Your task to perform on an android device: open a new tab in the chrome app Image 0: 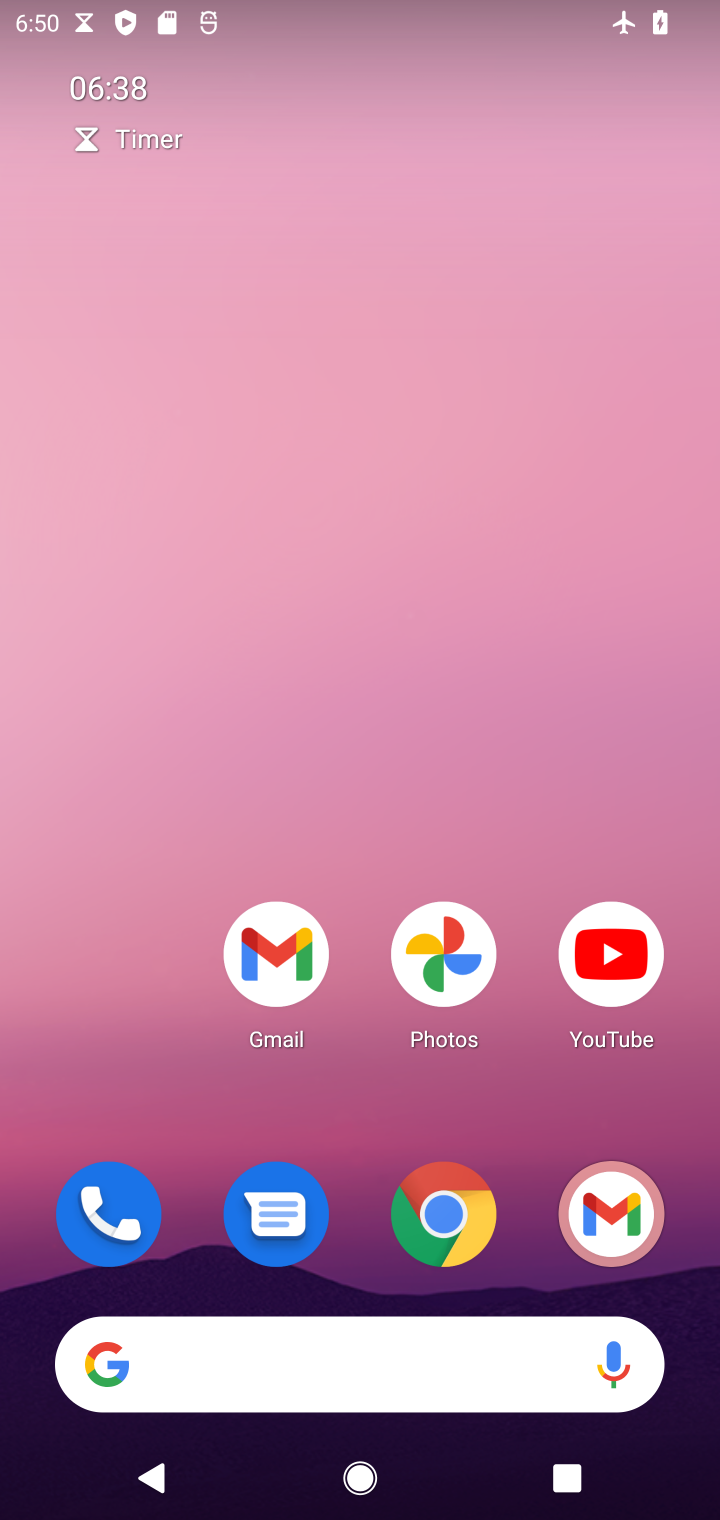
Step 0: click (447, 1205)
Your task to perform on an android device: open a new tab in the chrome app Image 1: 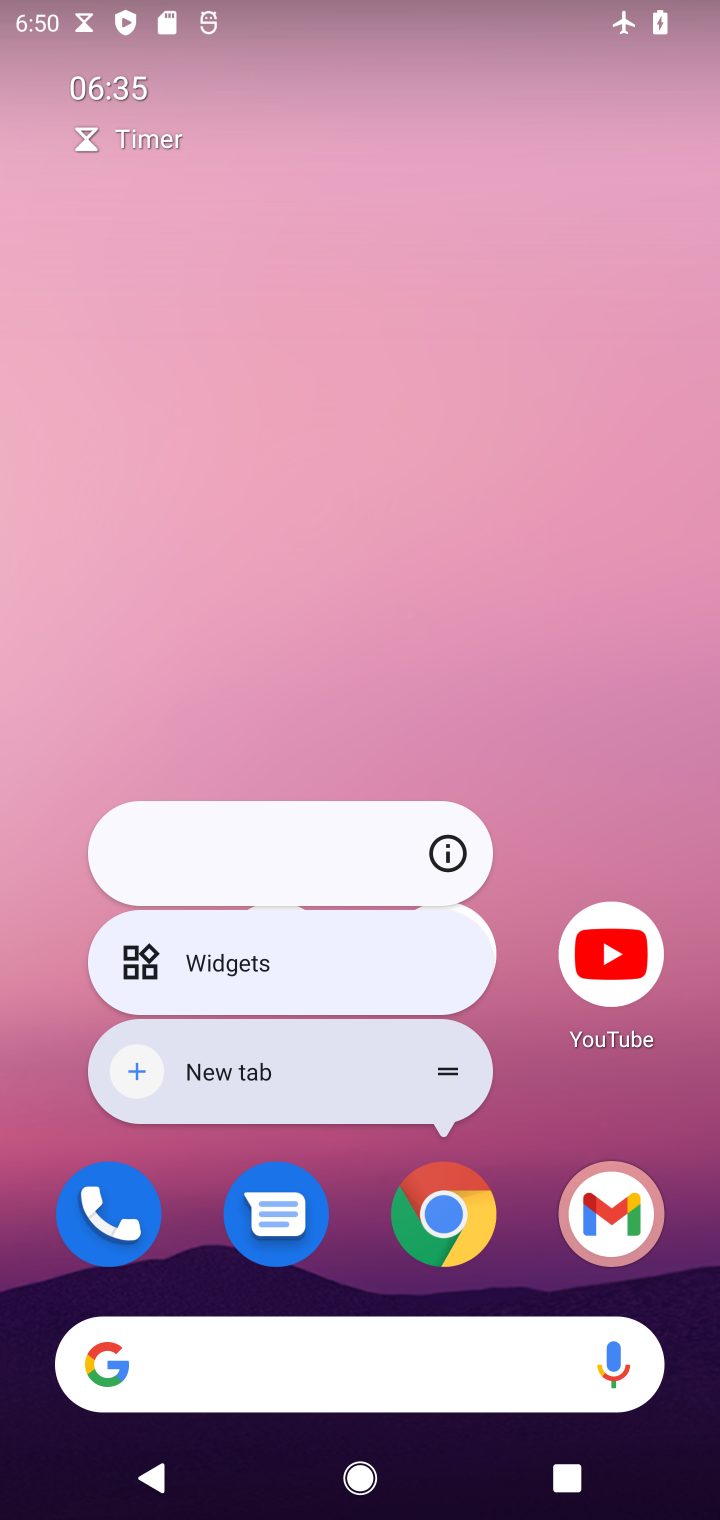
Step 1: click (447, 1205)
Your task to perform on an android device: open a new tab in the chrome app Image 2: 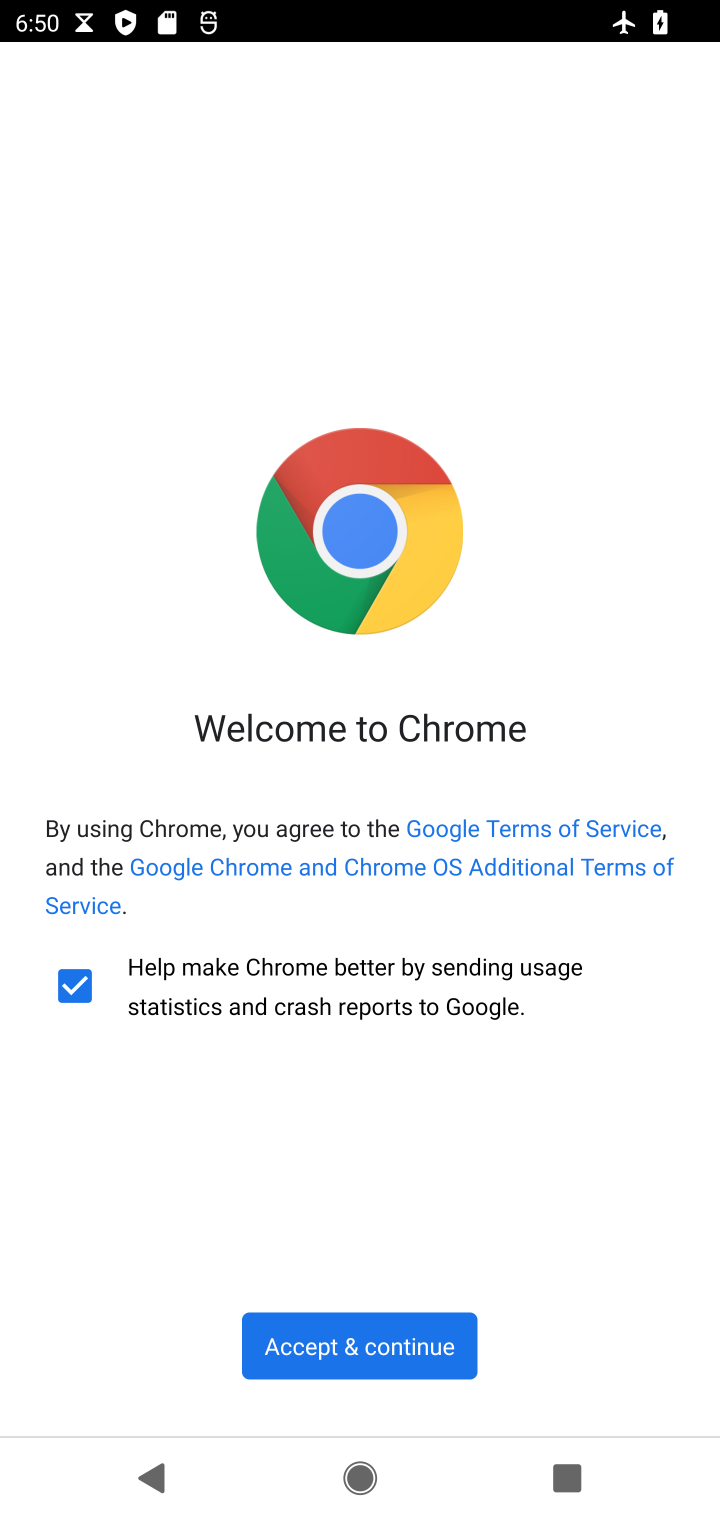
Step 2: click (361, 1362)
Your task to perform on an android device: open a new tab in the chrome app Image 3: 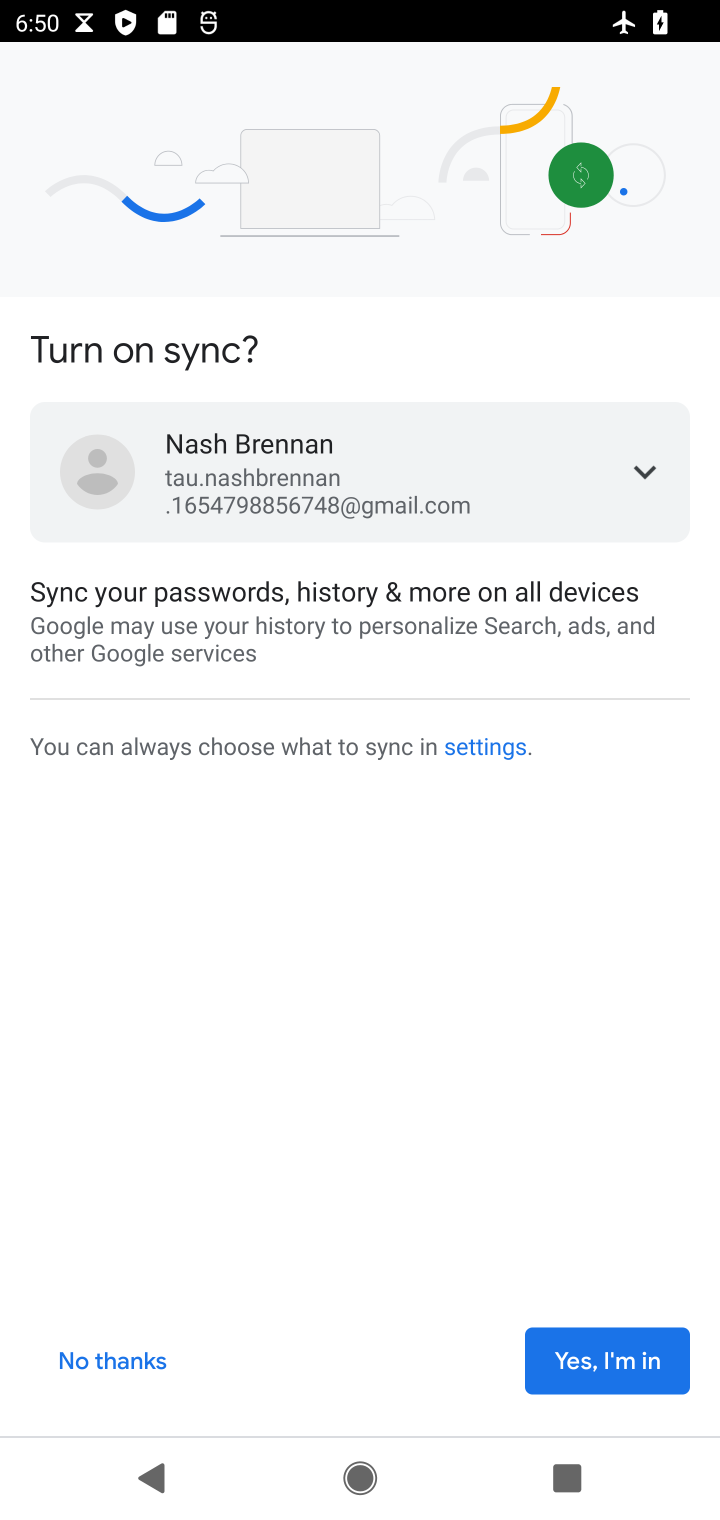
Step 3: click (597, 1357)
Your task to perform on an android device: open a new tab in the chrome app Image 4: 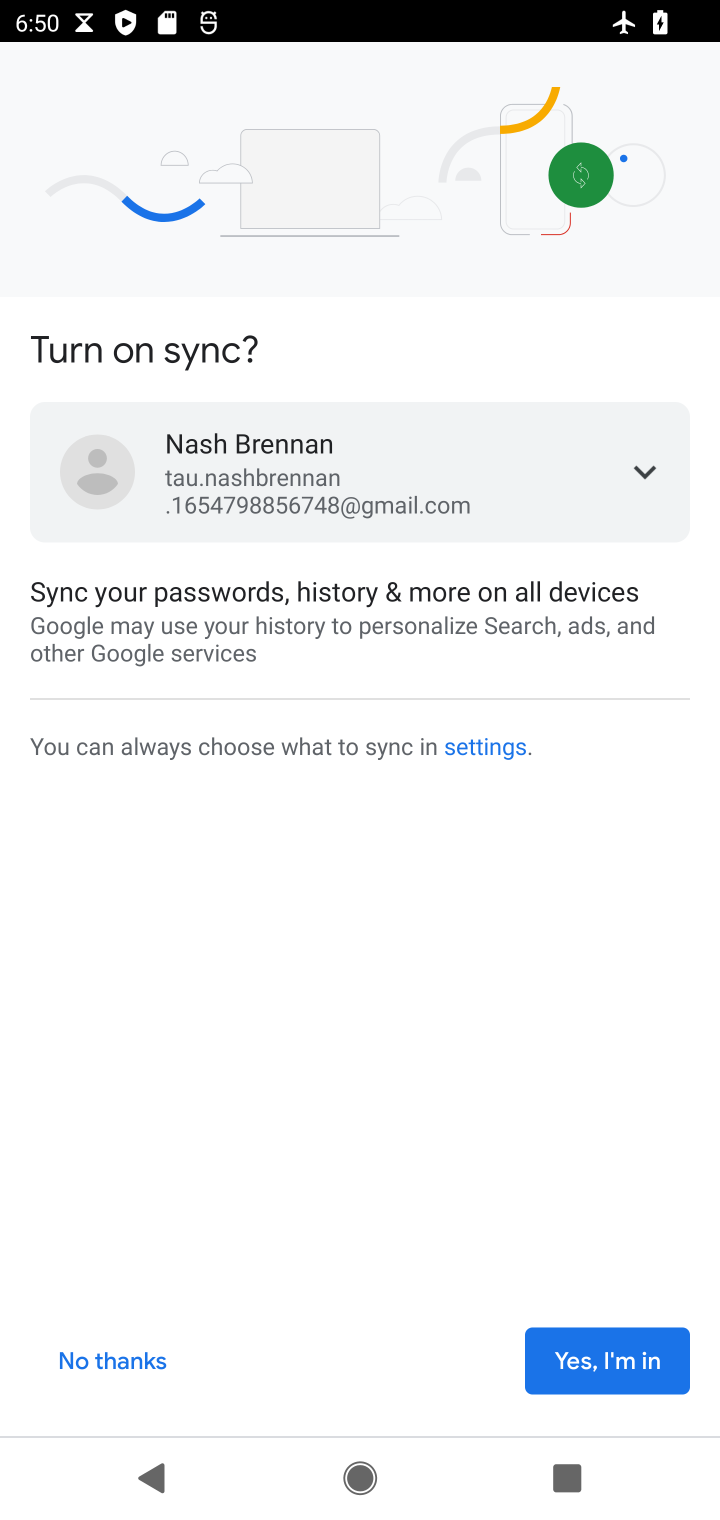
Step 4: click (616, 1362)
Your task to perform on an android device: open a new tab in the chrome app Image 5: 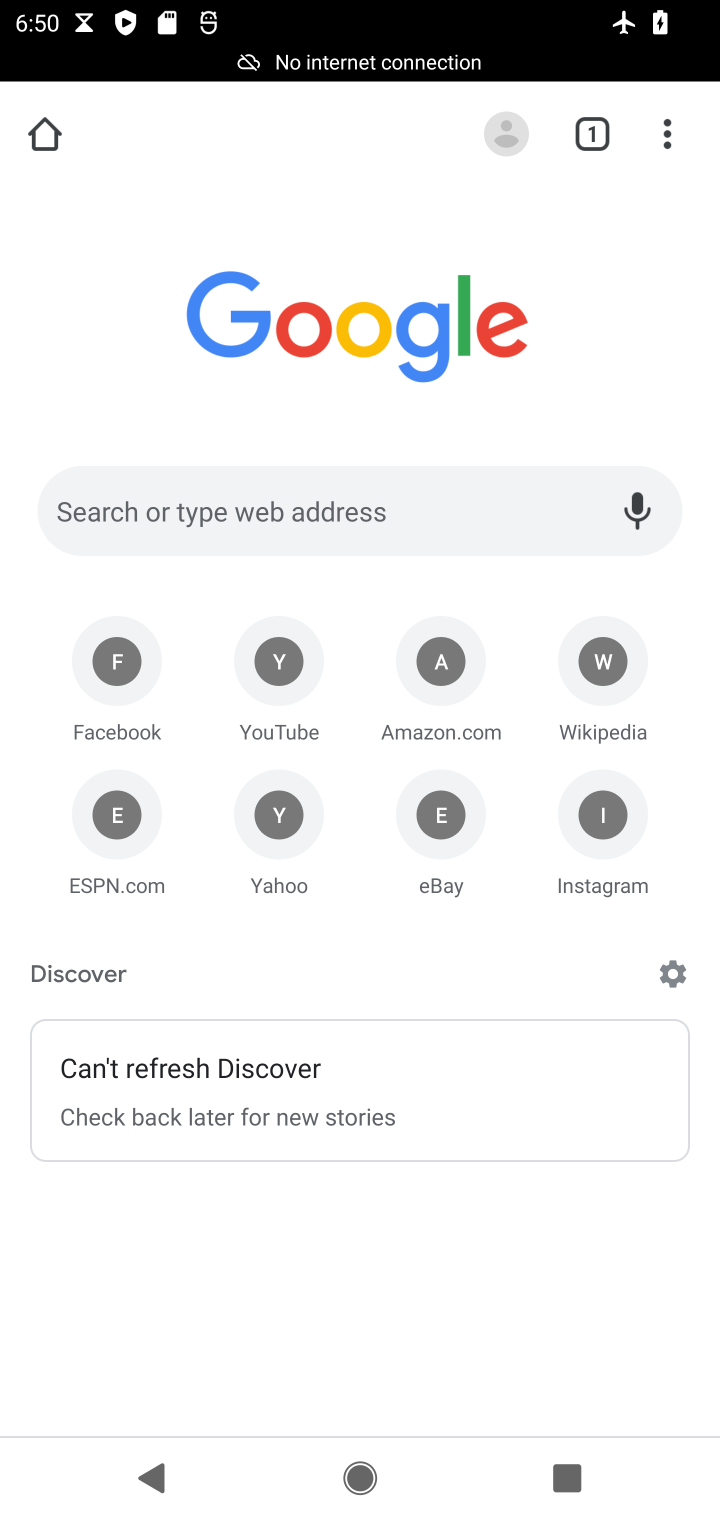
Step 5: click (672, 143)
Your task to perform on an android device: open a new tab in the chrome app Image 6: 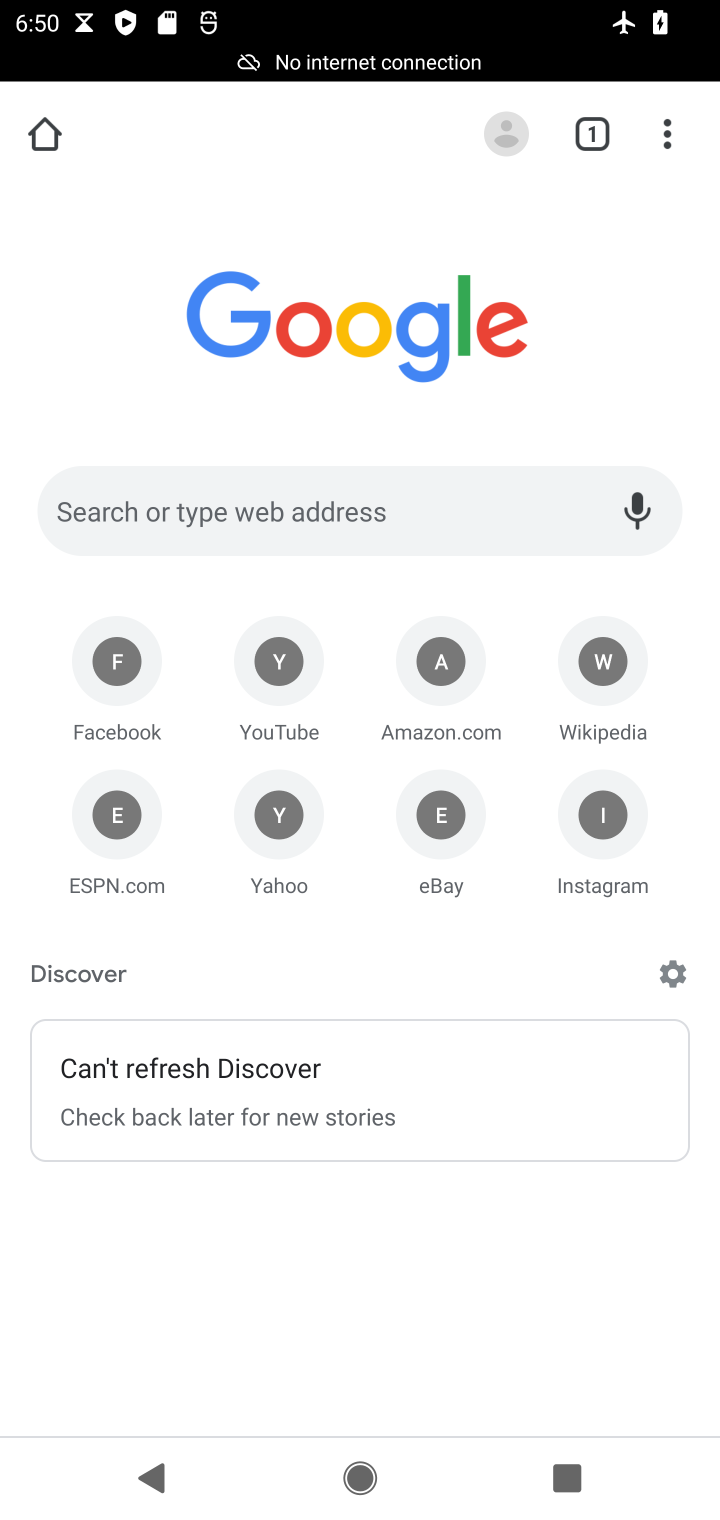
Step 6: click (659, 145)
Your task to perform on an android device: open a new tab in the chrome app Image 7: 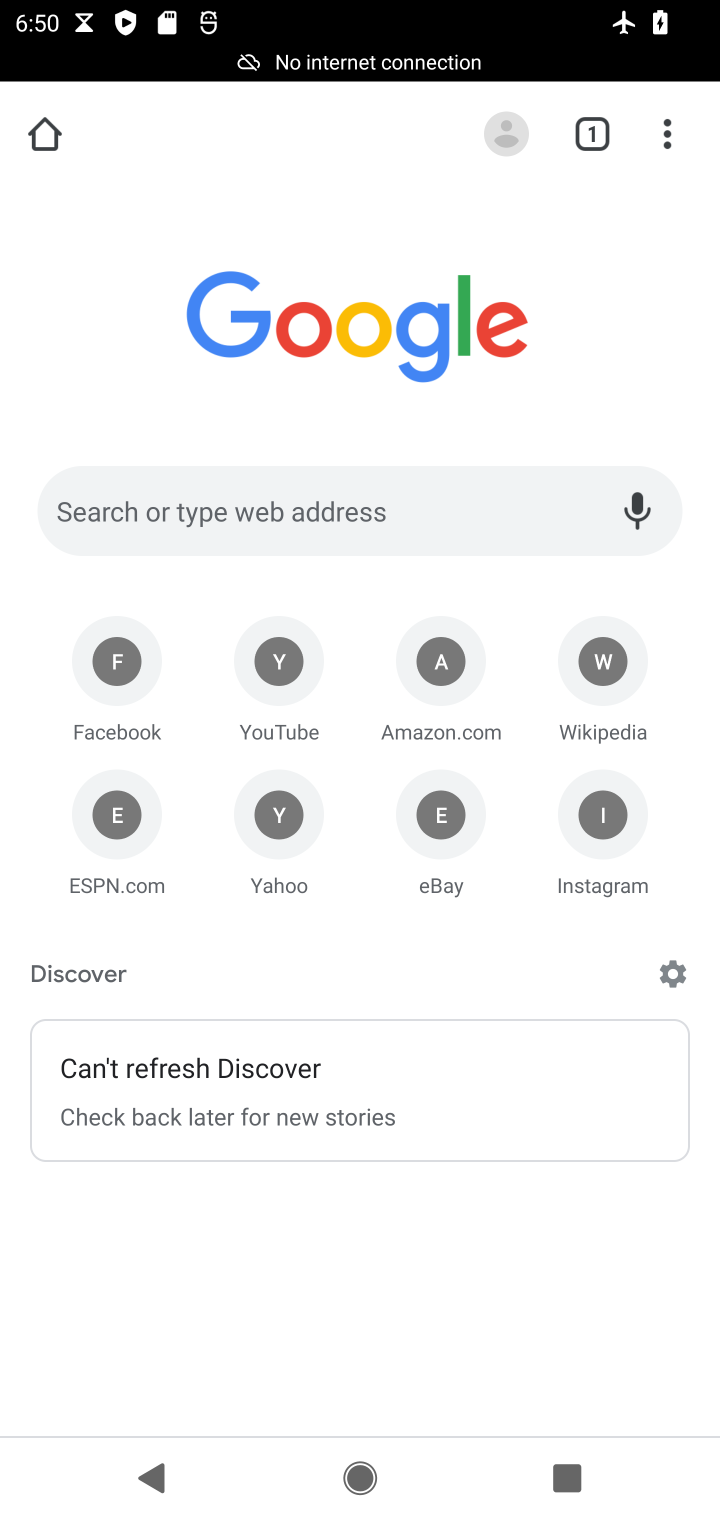
Step 7: click (659, 146)
Your task to perform on an android device: open a new tab in the chrome app Image 8: 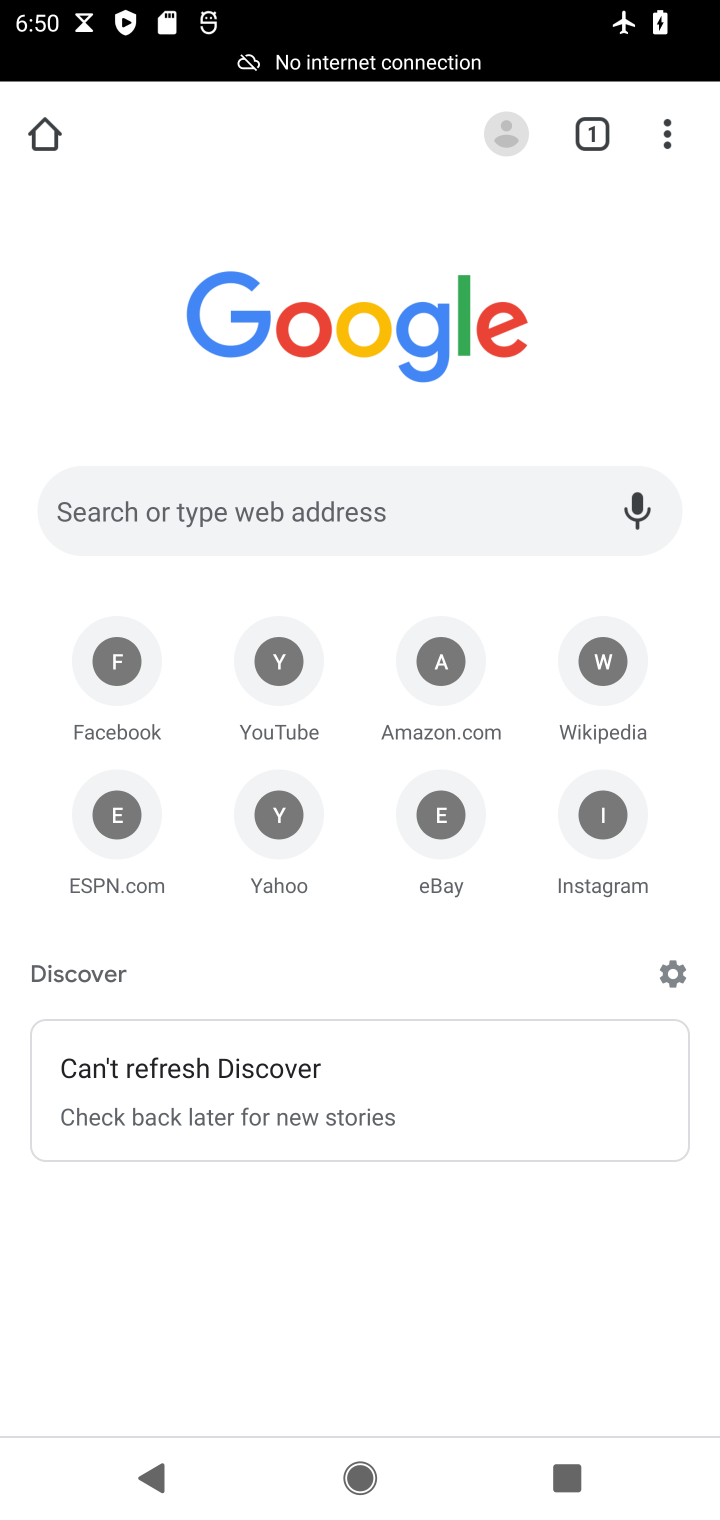
Step 8: click (680, 143)
Your task to perform on an android device: open a new tab in the chrome app Image 9: 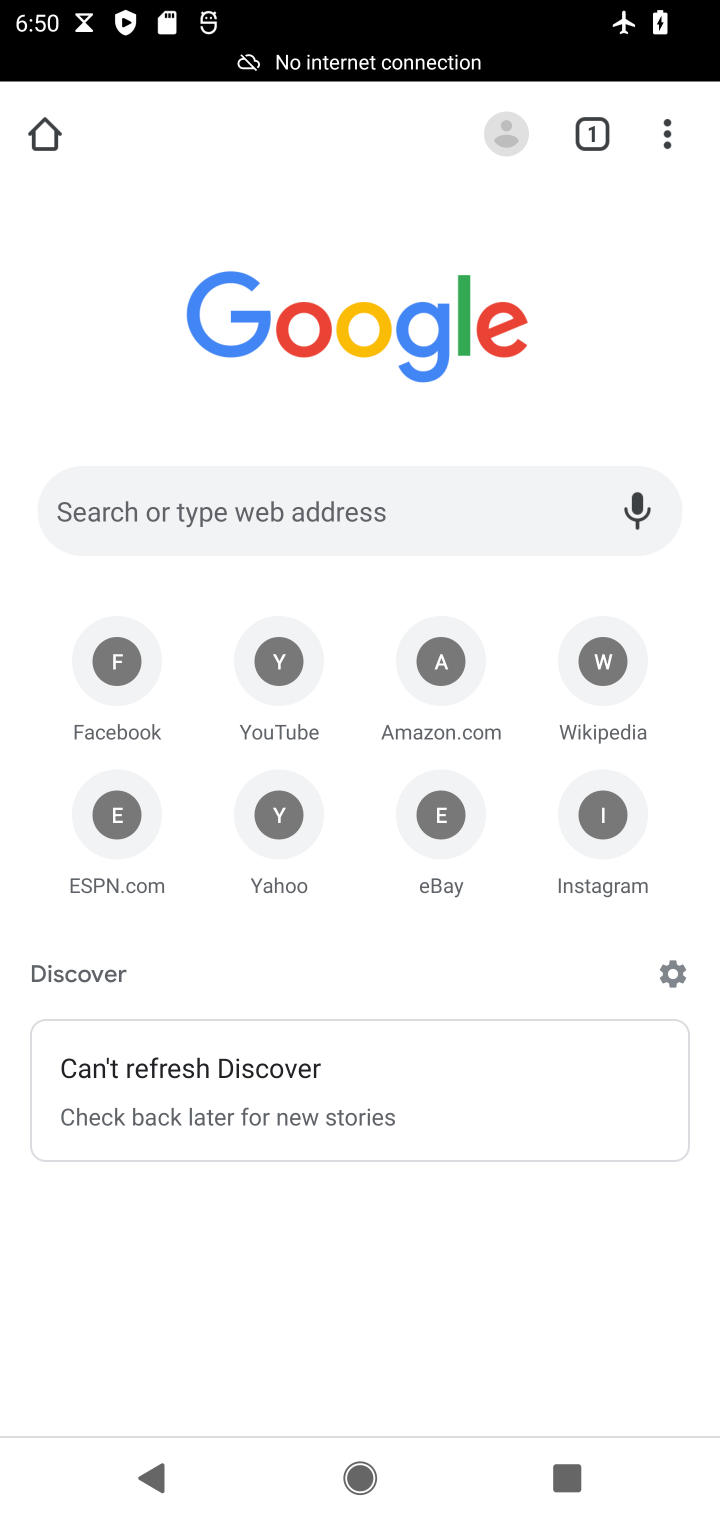
Step 9: click (677, 145)
Your task to perform on an android device: open a new tab in the chrome app Image 10: 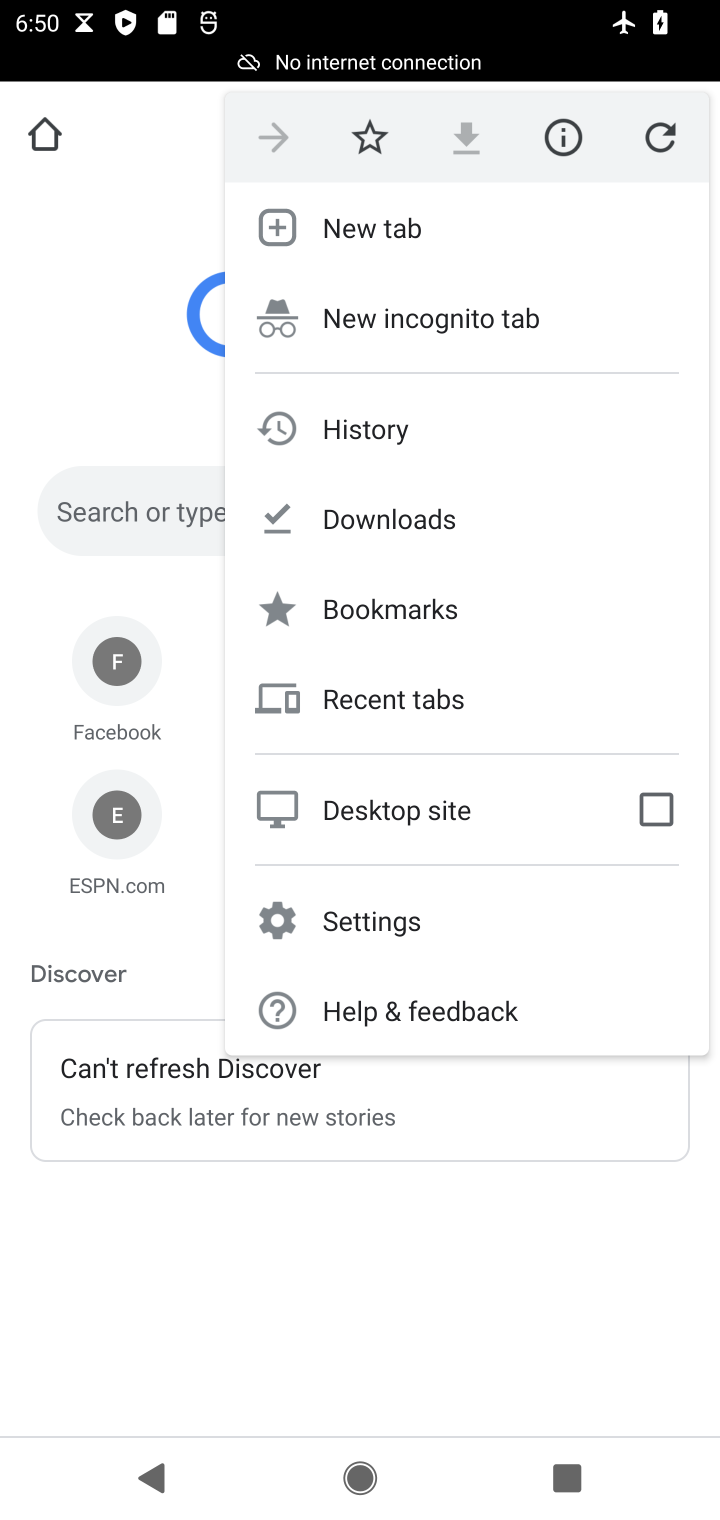
Step 10: click (394, 235)
Your task to perform on an android device: open a new tab in the chrome app Image 11: 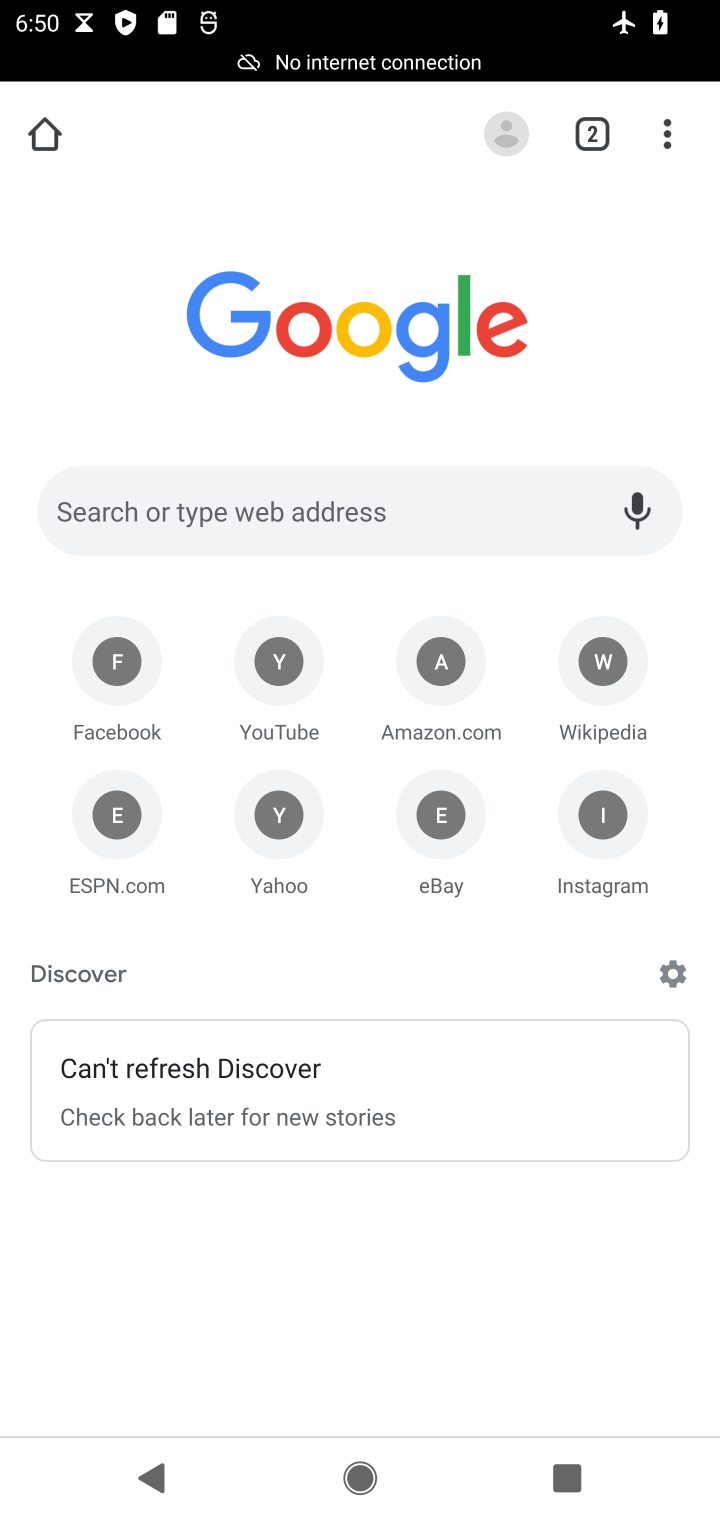
Step 11: task complete